Your task to perform on an android device: Open maps Image 0: 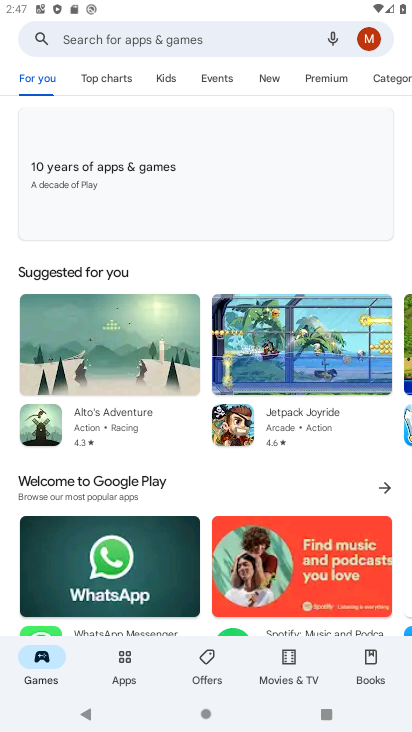
Step 0: press home button
Your task to perform on an android device: Open maps Image 1: 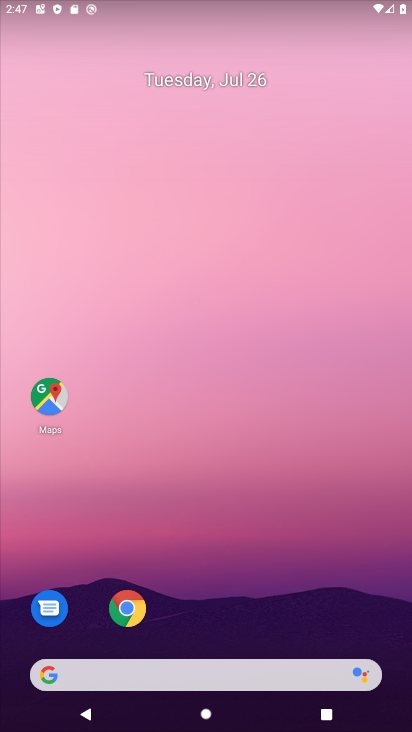
Step 1: click (62, 400)
Your task to perform on an android device: Open maps Image 2: 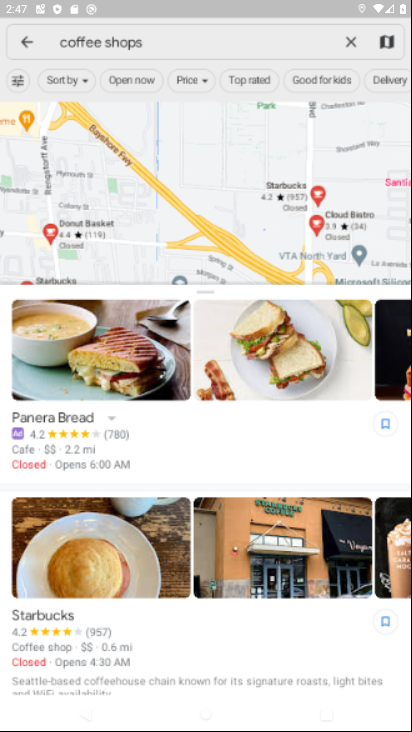
Step 2: task complete